Your task to perform on an android device: Go to settings Image 0: 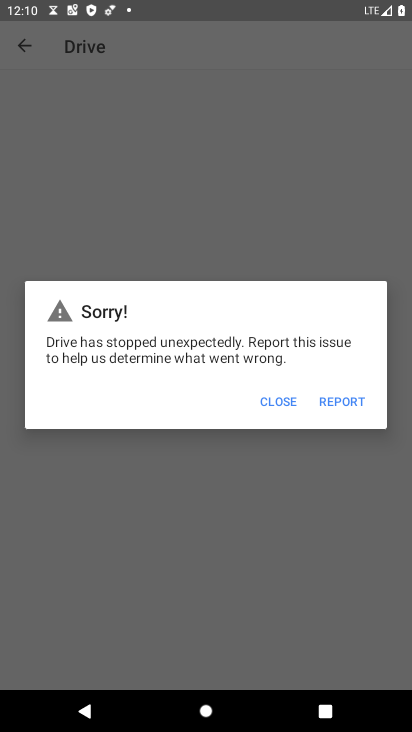
Step 0: press home button
Your task to perform on an android device: Go to settings Image 1: 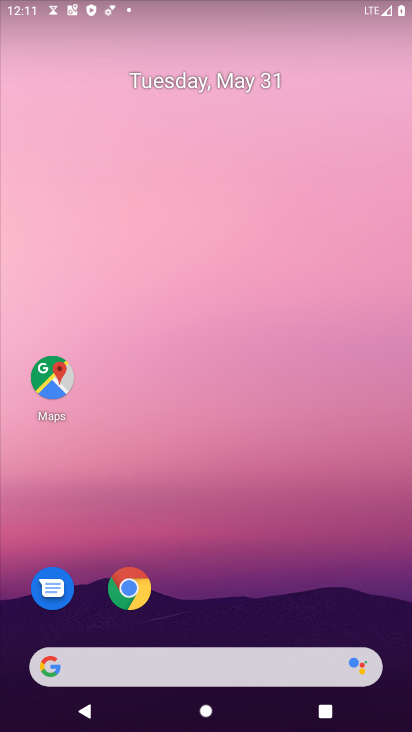
Step 1: drag from (215, 630) to (239, 62)
Your task to perform on an android device: Go to settings Image 2: 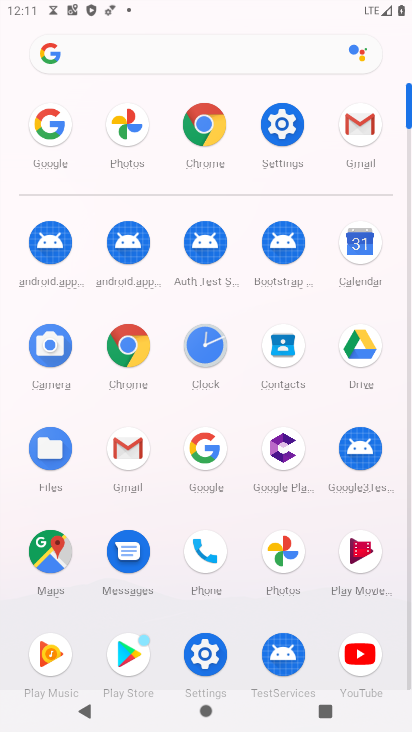
Step 2: click (280, 120)
Your task to perform on an android device: Go to settings Image 3: 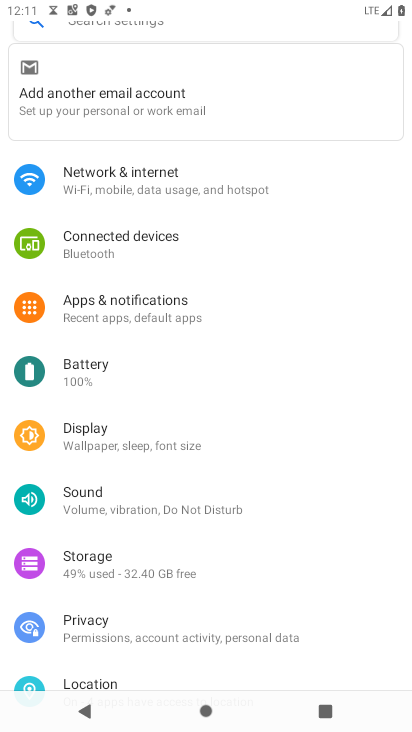
Step 3: task complete